Your task to perform on an android device: turn smart compose on in the gmail app Image 0: 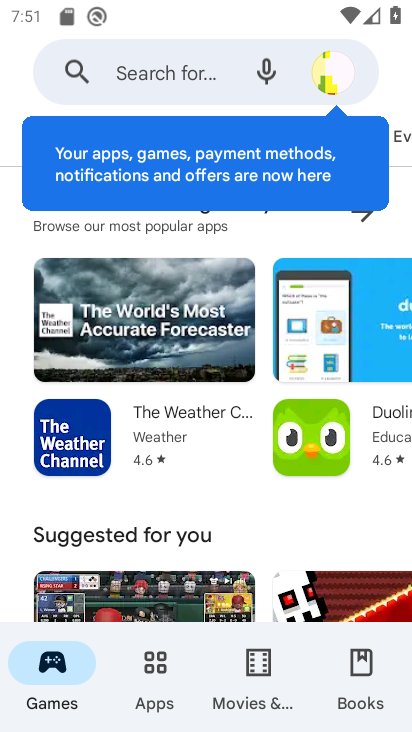
Step 0: press home button
Your task to perform on an android device: turn smart compose on in the gmail app Image 1: 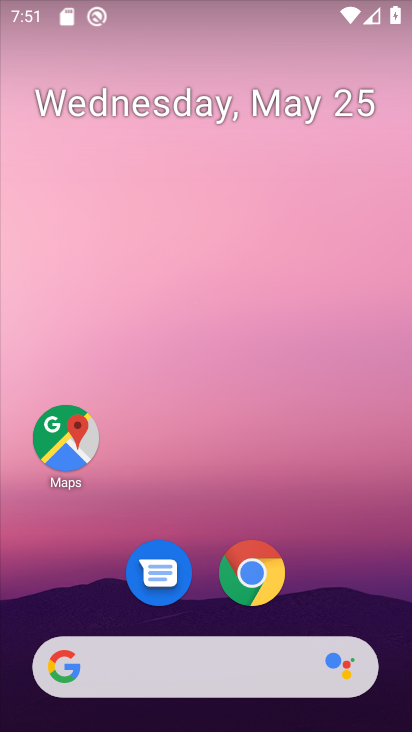
Step 1: drag from (386, 670) to (324, 308)
Your task to perform on an android device: turn smart compose on in the gmail app Image 2: 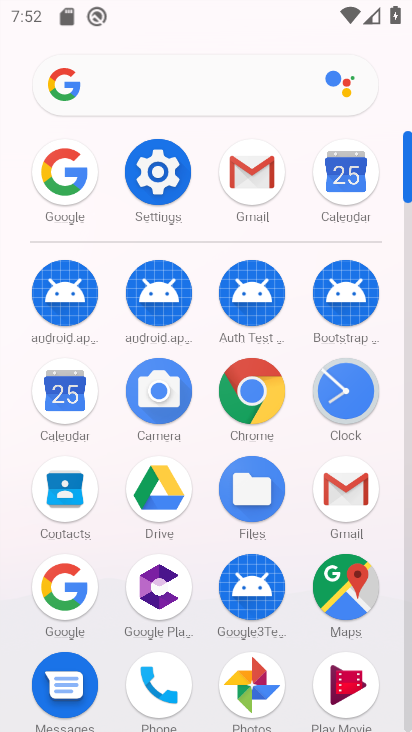
Step 2: click (335, 471)
Your task to perform on an android device: turn smart compose on in the gmail app Image 3: 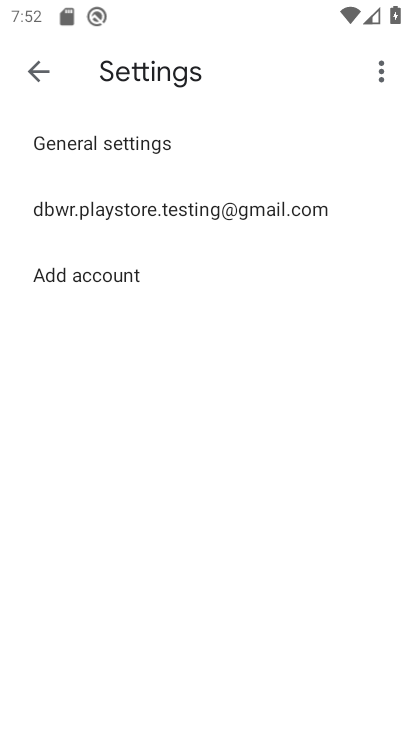
Step 3: click (53, 216)
Your task to perform on an android device: turn smart compose on in the gmail app Image 4: 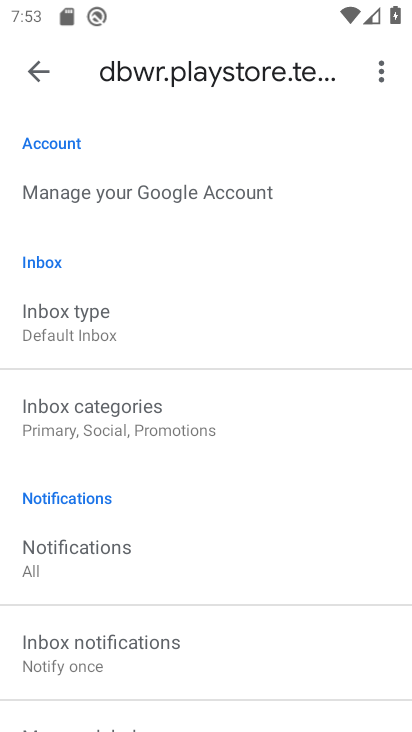
Step 4: task complete